Your task to perform on an android device: turn on showing notifications on the lock screen Image 0: 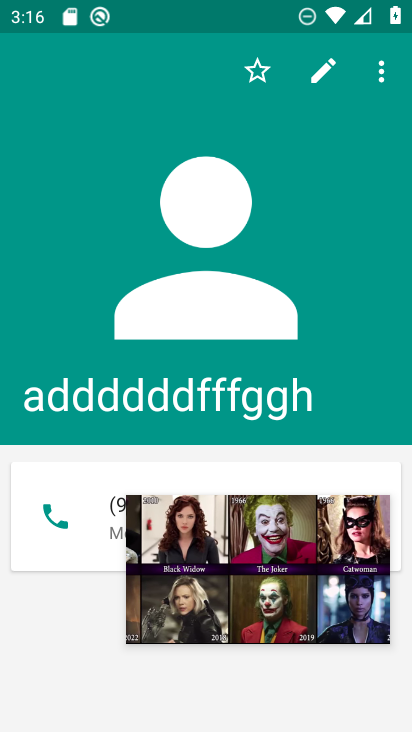
Step 0: drag from (326, 533) to (307, 666)
Your task to perform on an android device: turn on showing notifications on the lock screen Image 1: 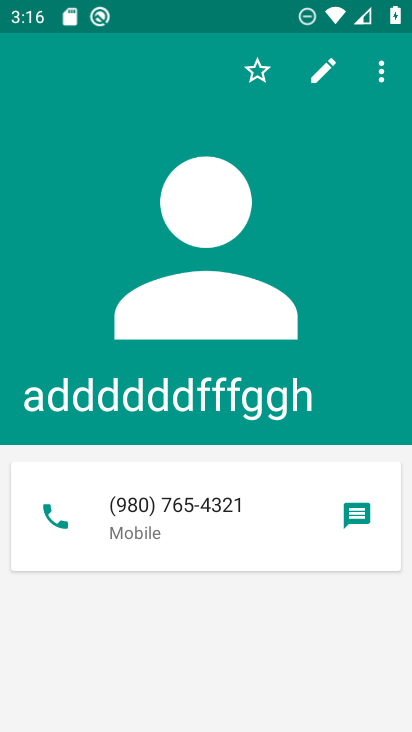
Step 1: press home button
Your task to perform on an android device: turn on showing notifications on the lock screen Image 2: 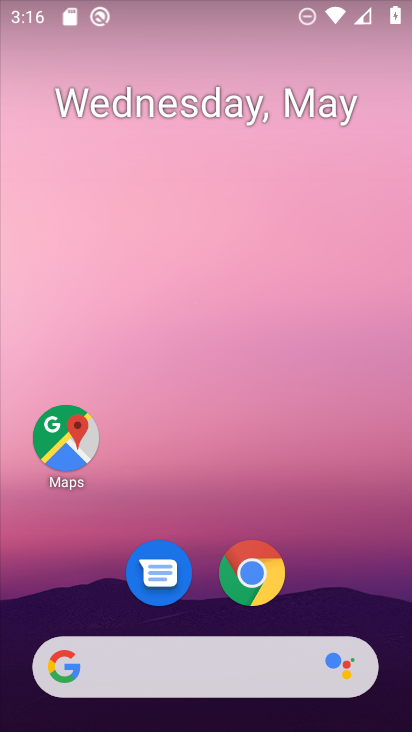
Step 2: drag from (317, 594) to (316, 10)
Your task to perform on an android device: turn on showing notifications on the lock screen Image 3: 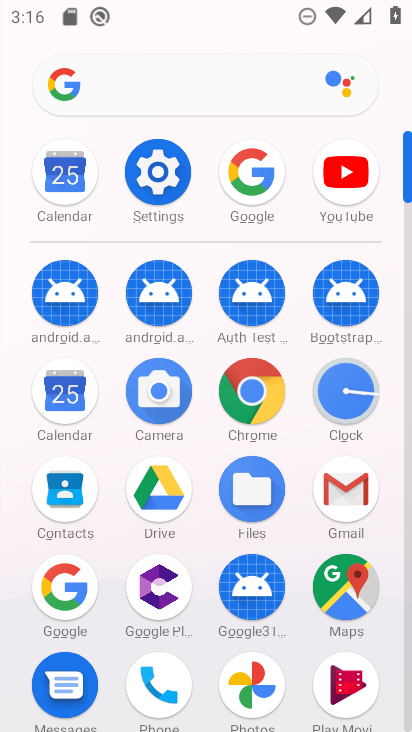
Step 3: click (152, 185)
Your task to perform on an android device: turn on showing notifications on the lock screen Image 4: 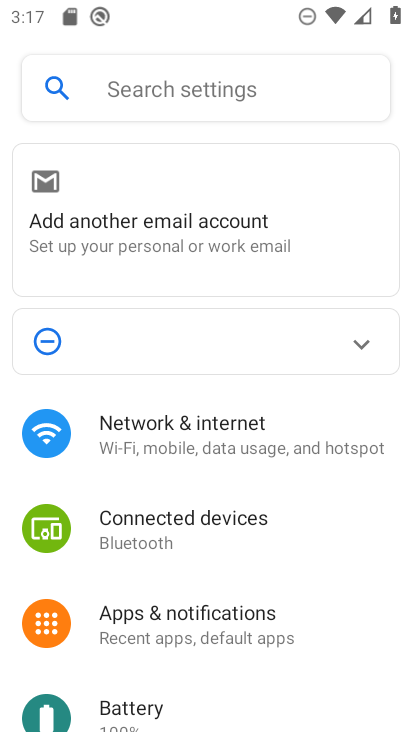
Step 4: click (208, 621)
Your task to perform on an android device: turn on showing notifications on the lock screen Image 5: 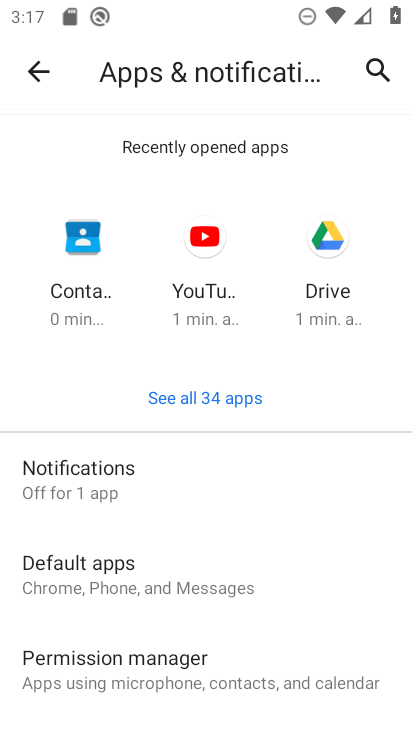
Step 5: click (122, 484)
Your task to perform on an android device: turn on showing notifications on the lock screen Image 6: 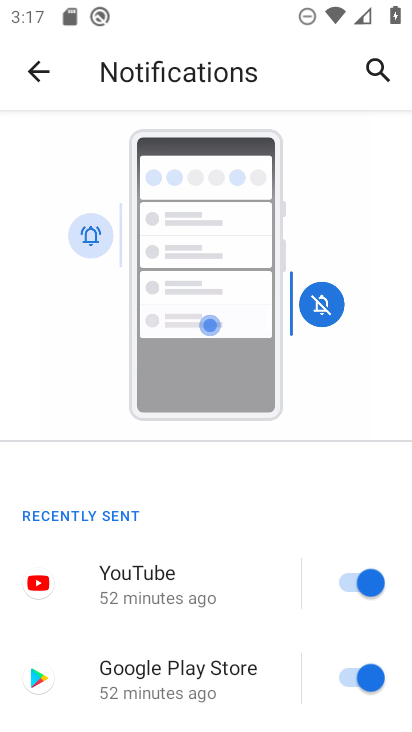
Step 6: drag from (155, 616) to (186, 149)
Your task to perform on an android device: turn on showing notifications on the lock screen Image 7: 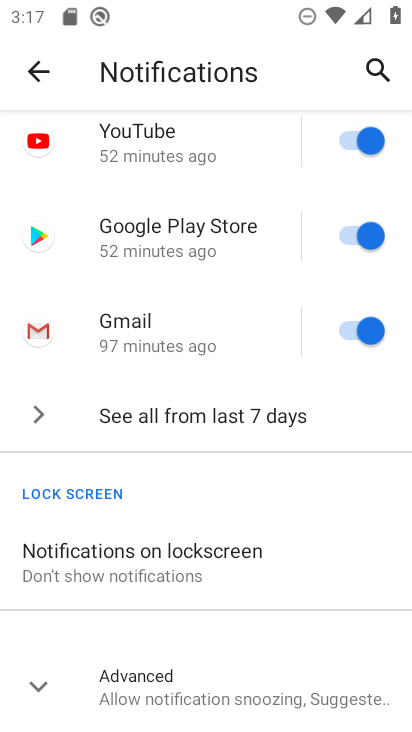
Step 7: click (184, 575)
Your task to perform on an android device: turn on showing notifications on the lock screen Image 8: 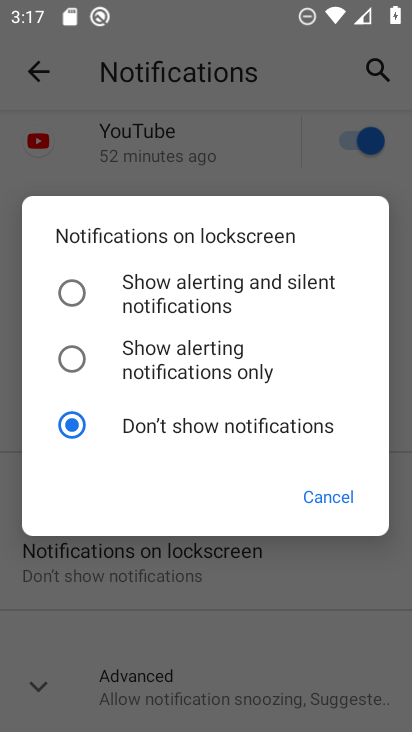
Step 8: click (124, 298)
Your task to perform on an android device: turn on showing notifications on the lock screen Image 9: 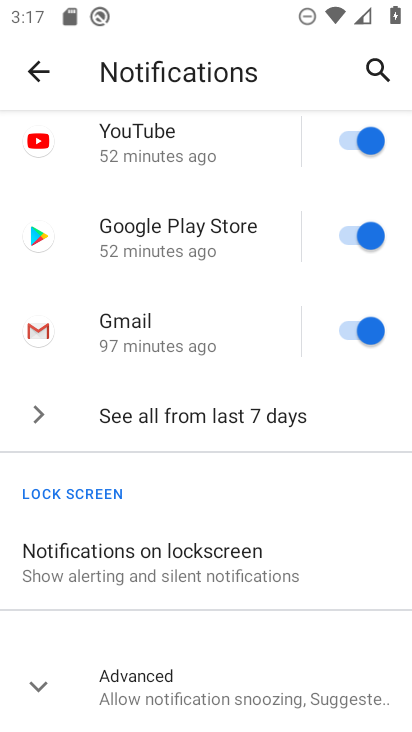
Step 9: task complete